Your task to perform on an android device: Go to settings Image 0: 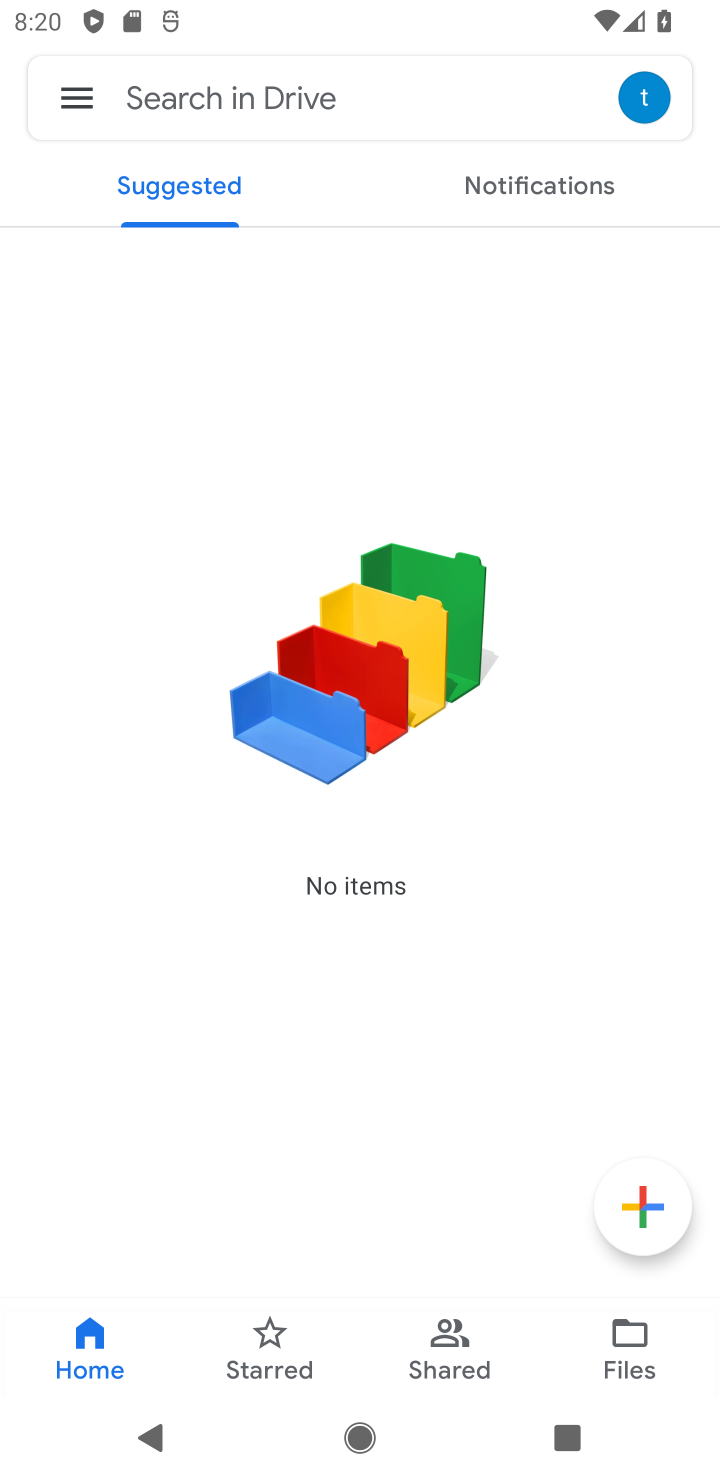
Step 0: press home button
Your task to perform on an android device: Go to settings Image 1: 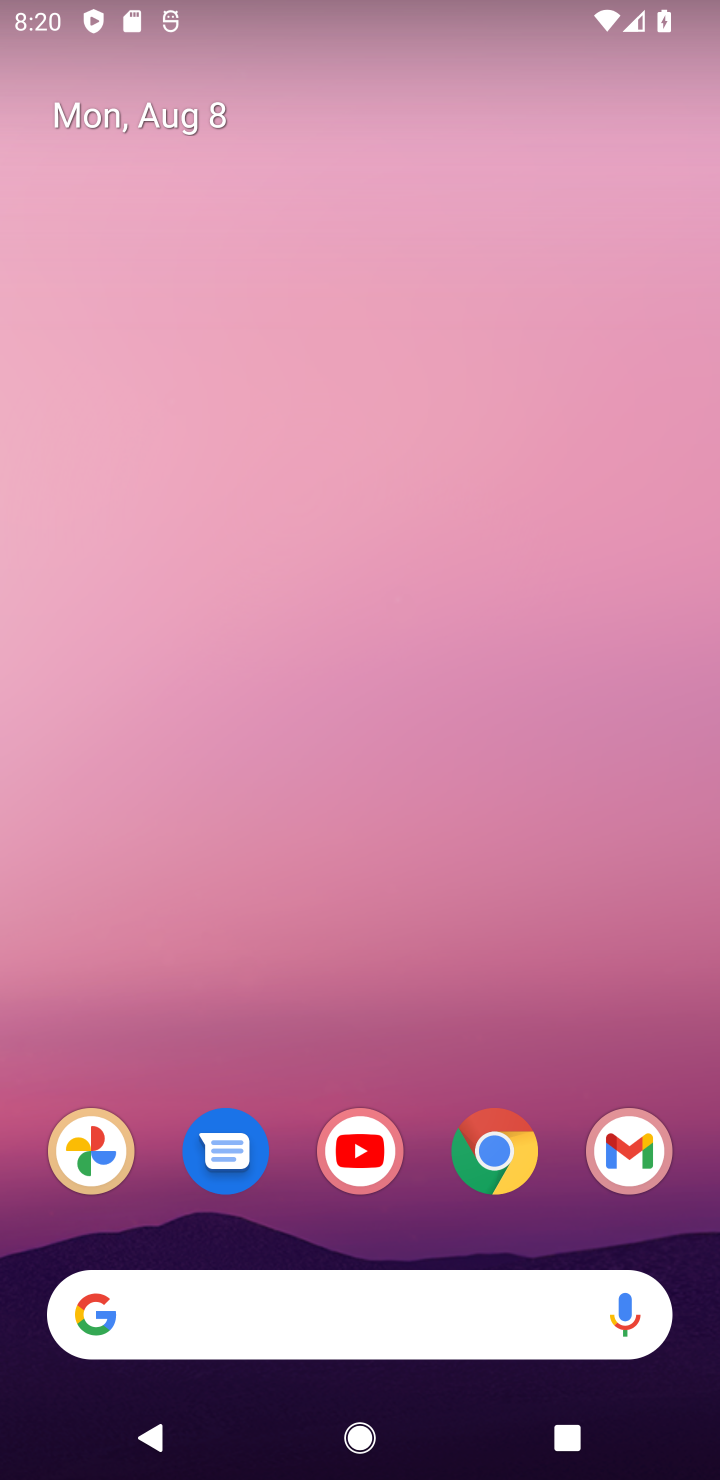
Step 1: drag from (530, 586) to (396, 9)
Your task to perform on an android device: Go to settings Image 2: 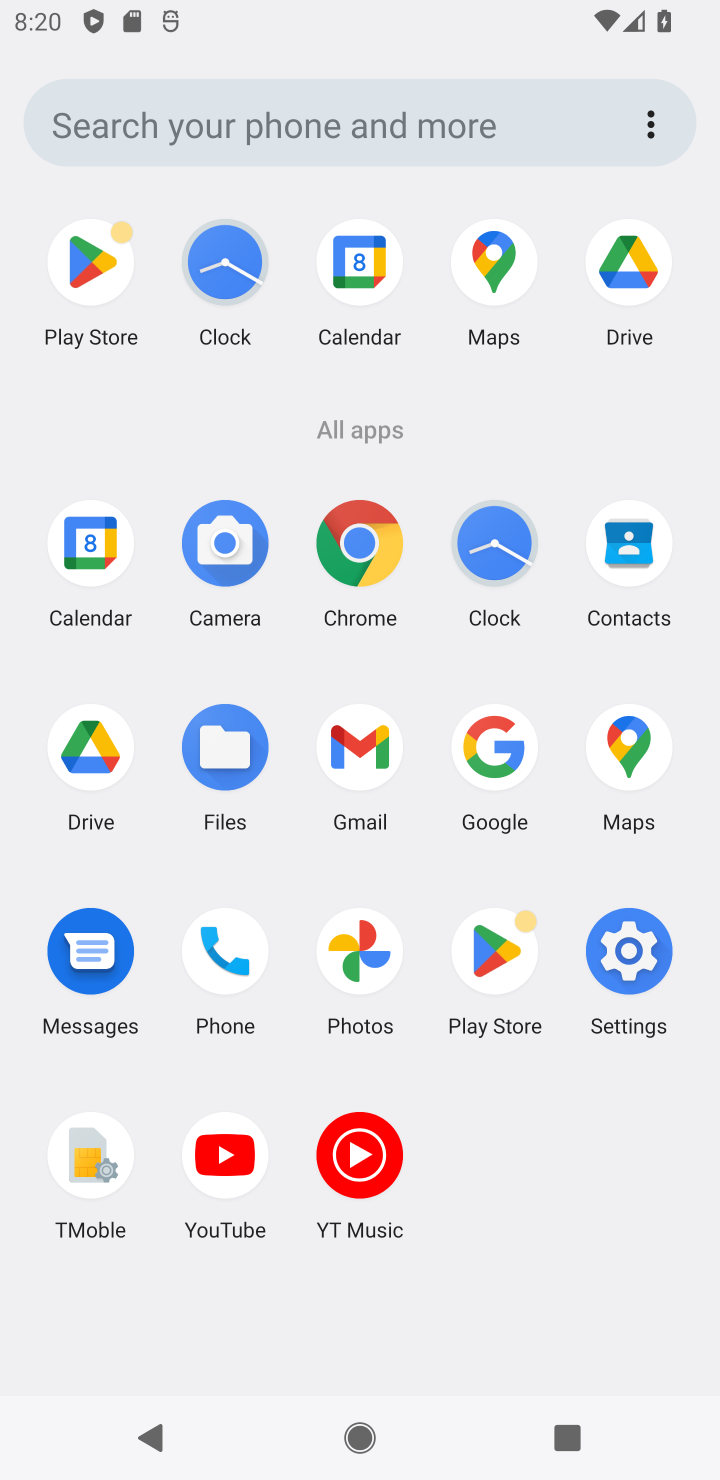
Step 2: click (623, 964)
Your task to perform on an android device: Go to settings Image 3: 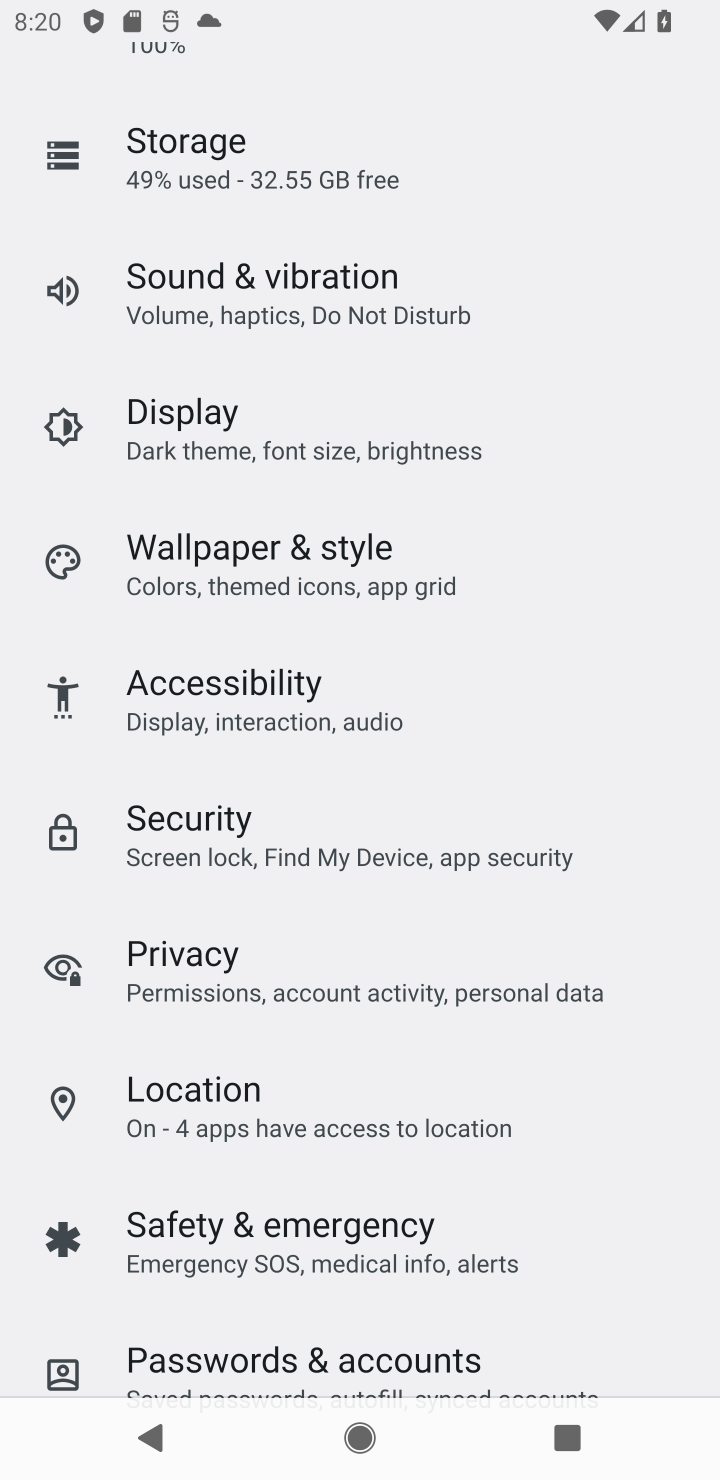
Step 3: task complete